Your task to perform on an android device: check storage Image 0: 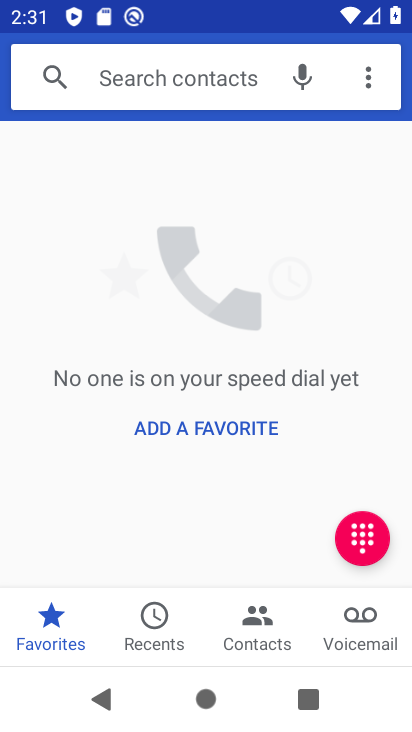
Step 0: press home button
Your task to perform on an android device: check storage Image 1: 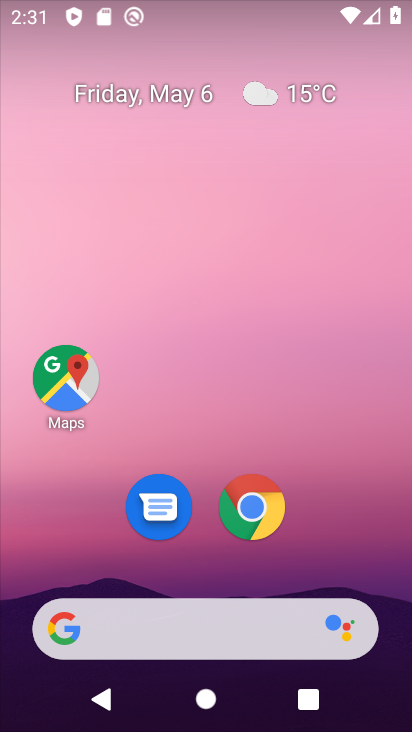
Step 1: drag from (387, 550) to (357, 158)
Your task to perform on an android device: check storage Image 2: 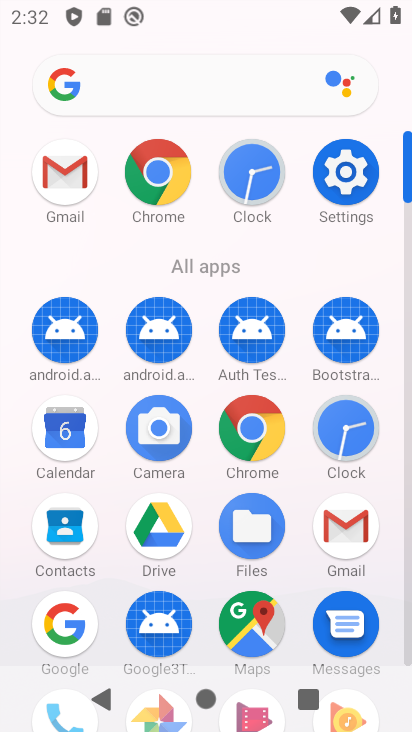
Step 2: click (349, 173)
Your task to perform on an android device: check storage Image 3: 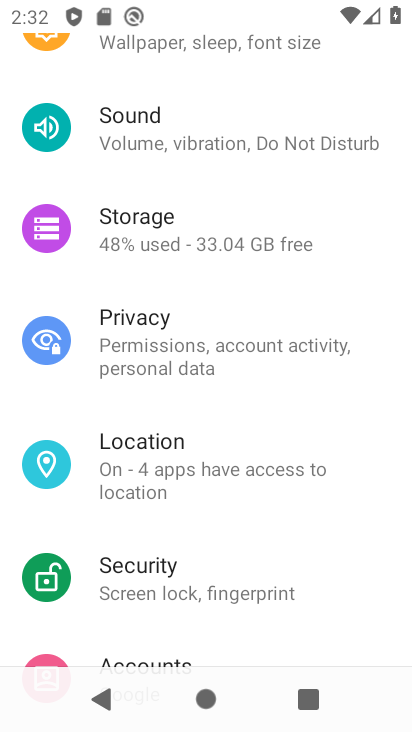
Step 3: click (153, 222)
Your task to perform on an android device: check storage Image 4: 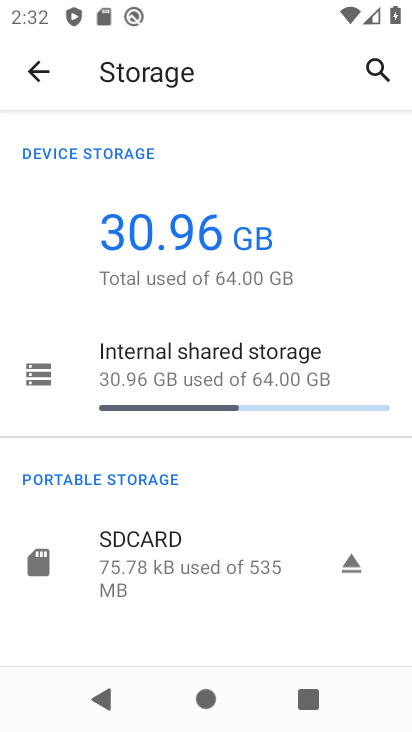
Step 4: click (53, 383)
Your task to perform on an android device: check storage Image 5: 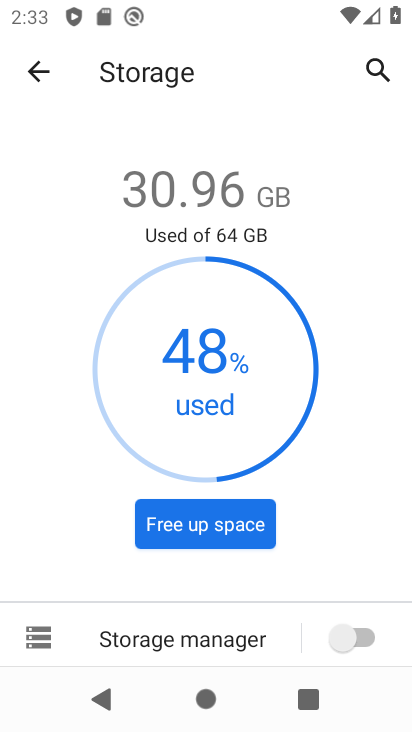
Step 5: task complete